Your task to perform on an android device: Open calendar and show me the fourth week of next month Image 0: 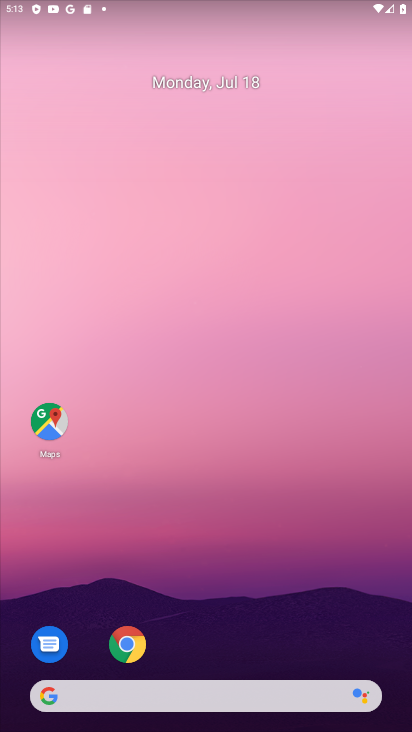
Step 0: press home button
Your task to perform on an android device: Open calendar and show me the fourth week of next month Image 1: 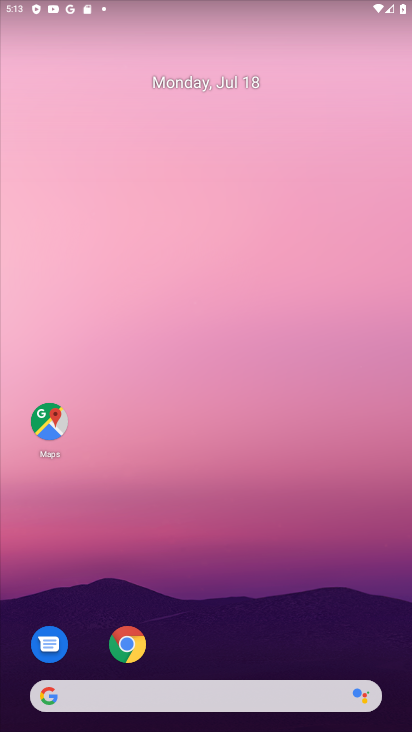
Step 1: drag from (297, 582) to (307, 0)
Your task to perform on an android device: Open calendar and show me the fourth week of next month Image 2: 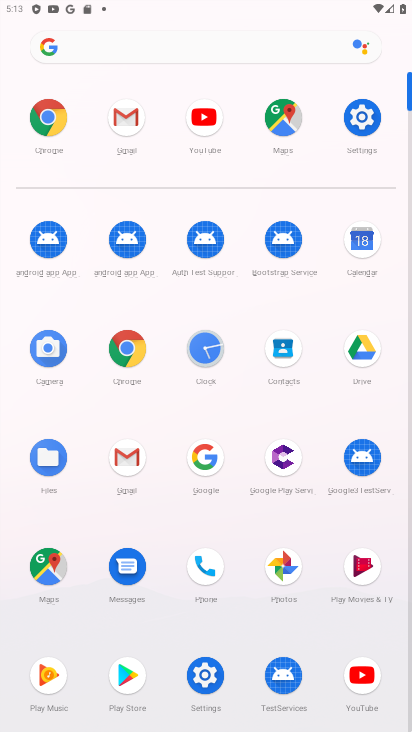
Step 2: click (363, 242)
Your task to perform on an android device: Open calendar and show me the fourth week of next month Image 3: 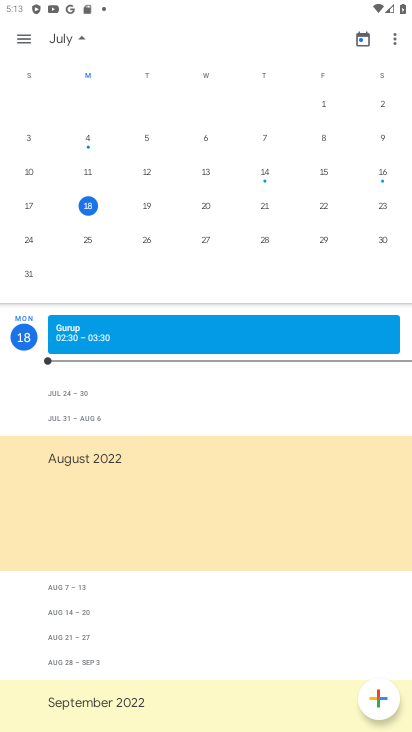
Step 3: drag from (343, 100) to (14, 91)
Your task to perform on an android device: Open calendar and show me the fourth week of next month Image 4: 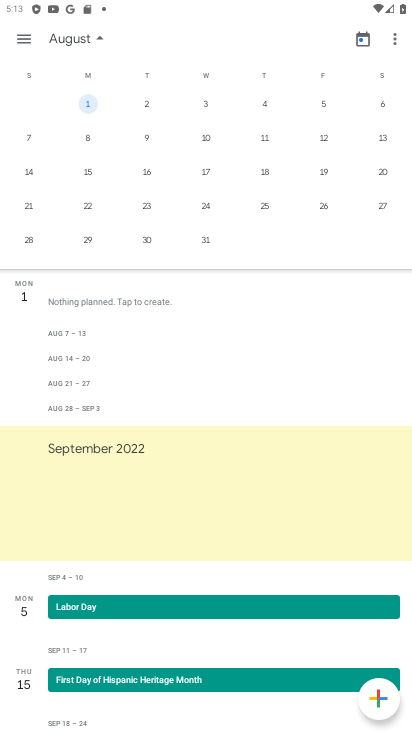
Step 4: click (19, 37)
Your task to perform on an android device: Open calendar and show me the fourth week of next month Image 5: 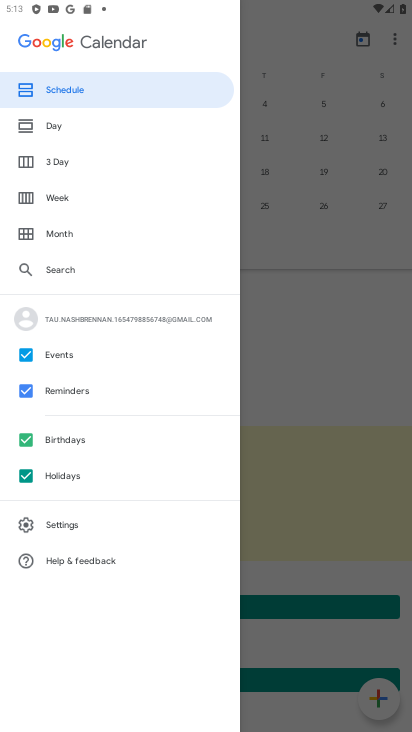
Step 5: click (59, 199)
Your task to perform on an android device: Open calendar and show me the fourth week of next month Image 6: 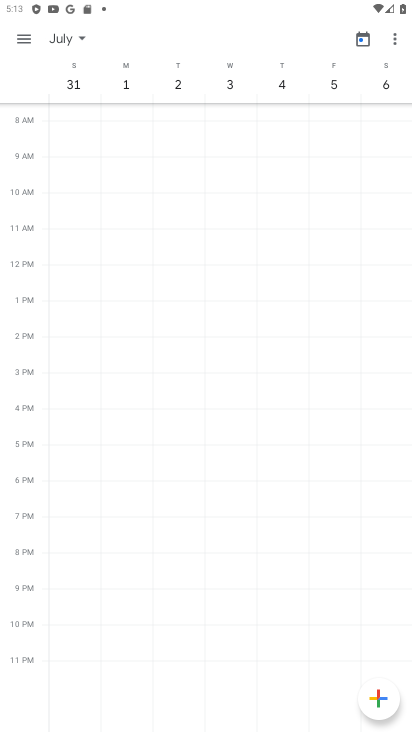
Step 6: task complete